Your task to perform on an android device: Do I have any events today? Image 0: 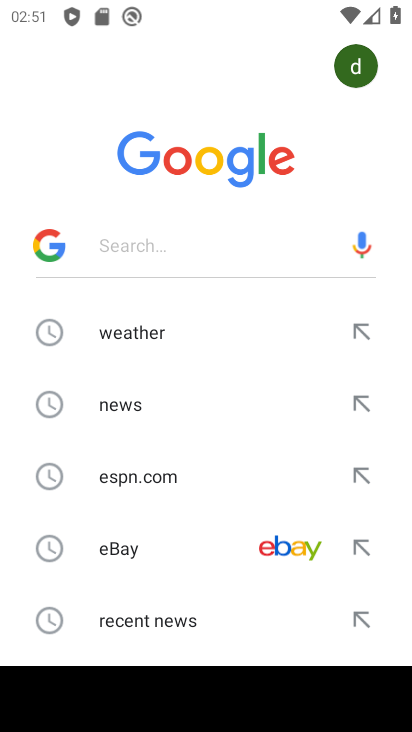
Step 0: press home button
Your task to perform on an android device: Do I have any events today? Image 1: 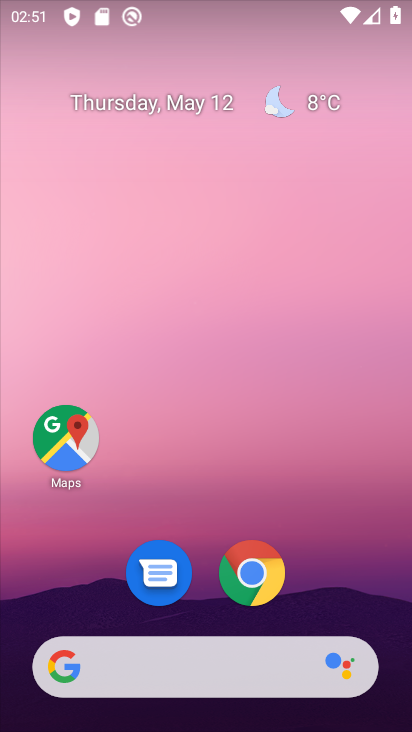
Step 1: drag from (346, 609) to (299, 95)
Your task to perform on an android device: Do I have any events today? Image 2: 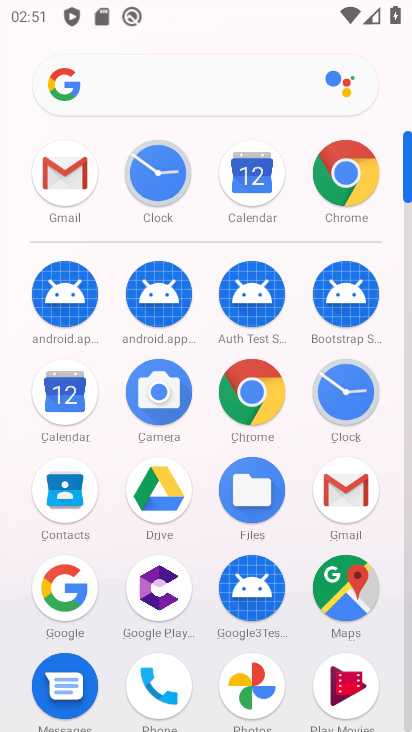
Step 2: click (56, 408)
Your task to perform on an android device: Do I have any events today? Image 3: 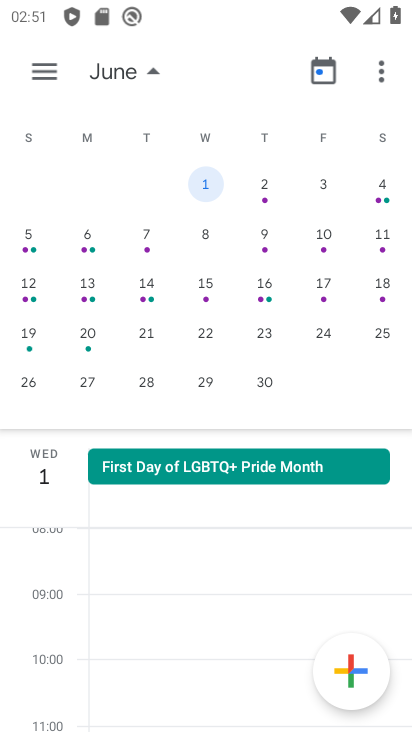
Step 3: drag from (93, 295) to (365, 259)
Your task to perform on an android device: Do I have any events today? Image 4: 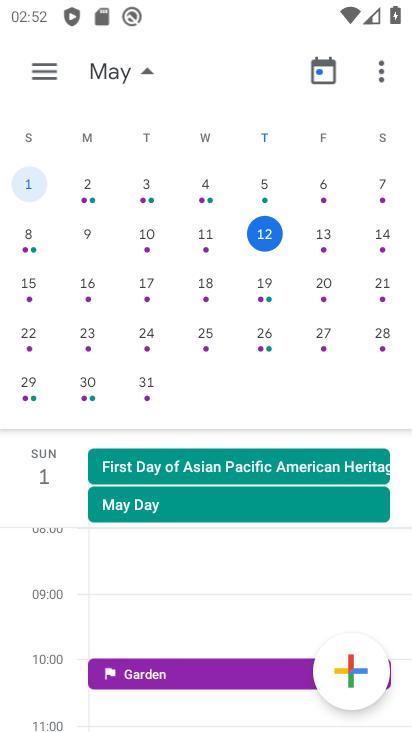
Step 4: click (144, 74)
Your task to perform on an android device: Do I have any events today? Image 5: 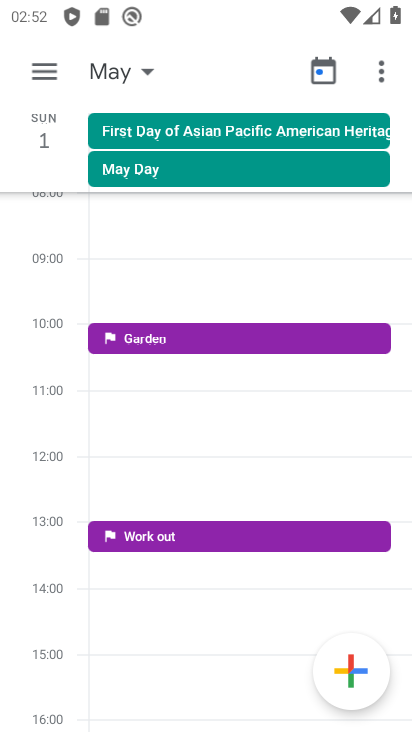
Step 5: task complete